Your task to perform on an android device: delete a single message in the gmail app Image 0: 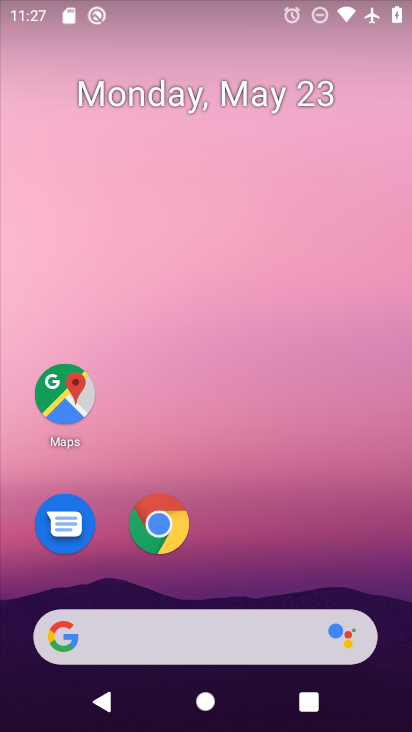
Step 0: drag from (225, 564) to (254, 26)
Your task to perform on an android device: delete a single message in the gmail app Image 1: 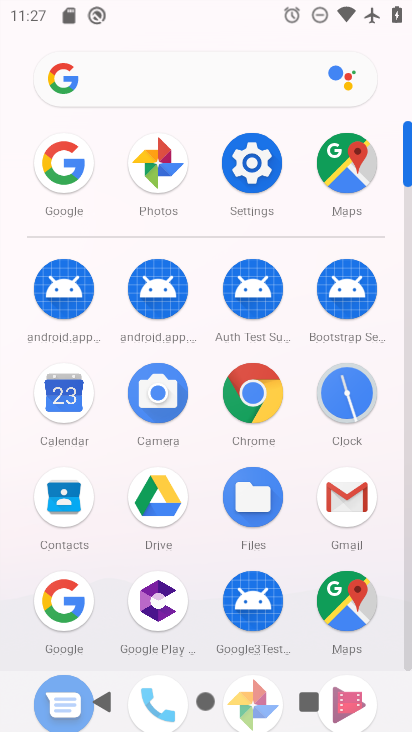
Step 1: click (339, 519)
Your task to perform on an android device: delete a single message in the gmail app Image 2: 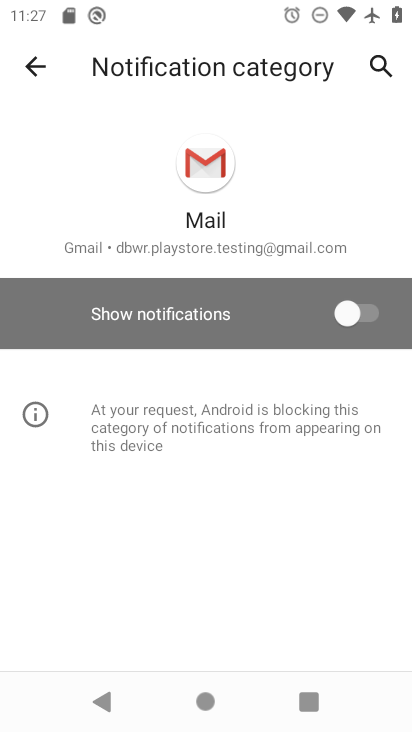
Step 2: click (21, 63)
Your task to perform on an android device: delete a single message in the gmail app Image 3: 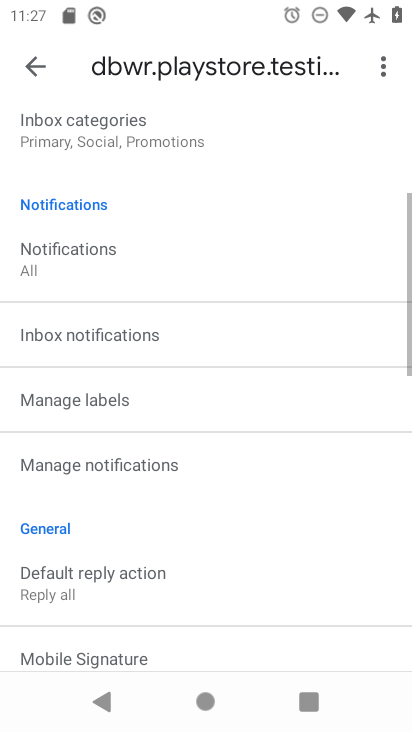
Step 3: click (21, 63)
Your task to perform on an android device: delete a single message in the gmail app Image 4: 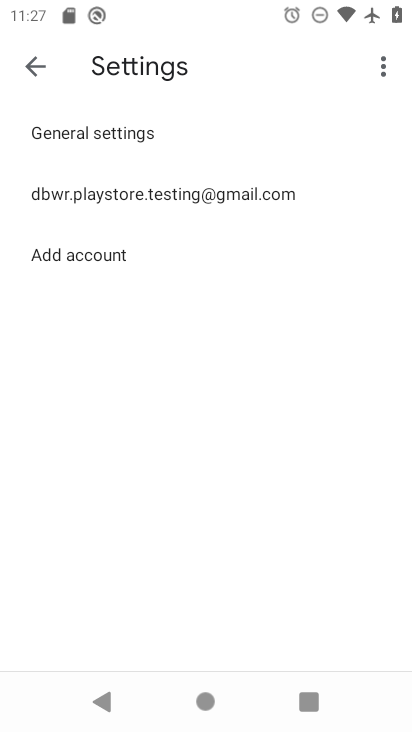
Step 4: click (21, 63)
Your task to perform on an android device: delete a single message in the gmail app Image 5: 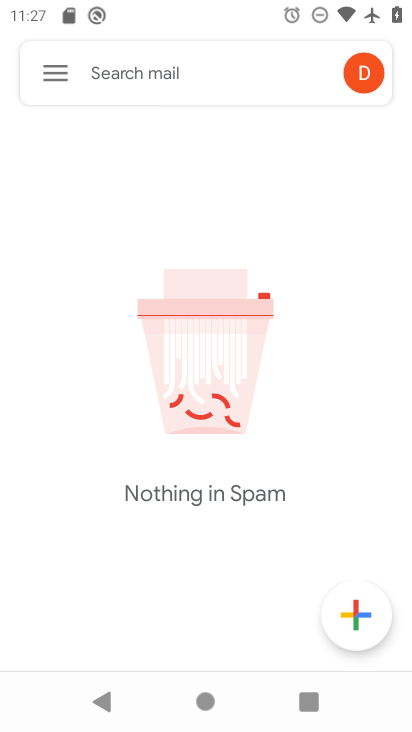
Step 5: task complete